Your task to perform on an android device: Open Chrome and go to settings Image 0: 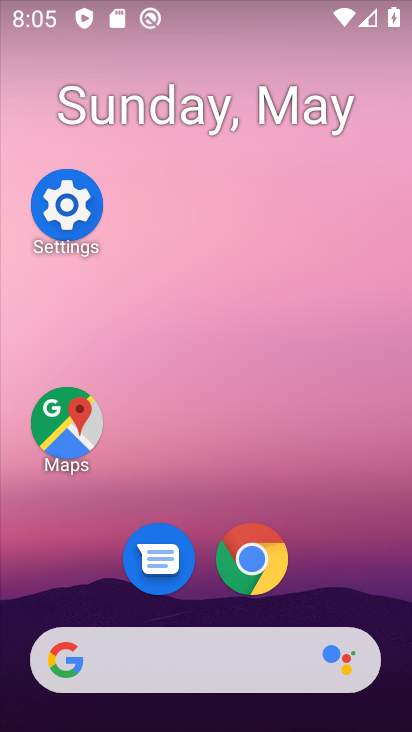
Step 0: click (272, 560)
Your task to perform on an android device: Open Chrome and go to settings Image 1: 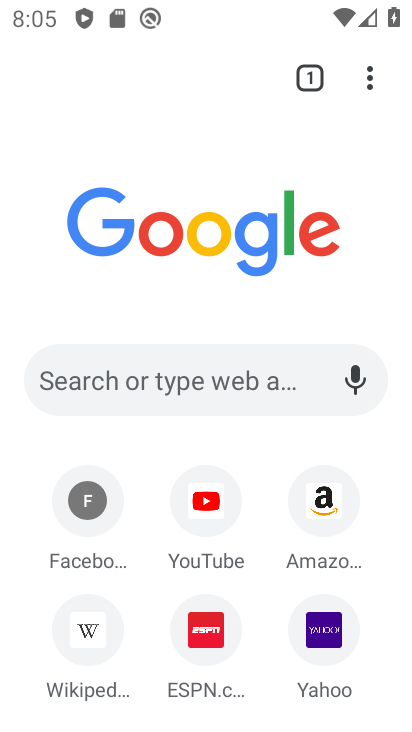
Step 1: click (382, 59)
Your task to perform on an android device: Open Chrome and go to settings Image 2: 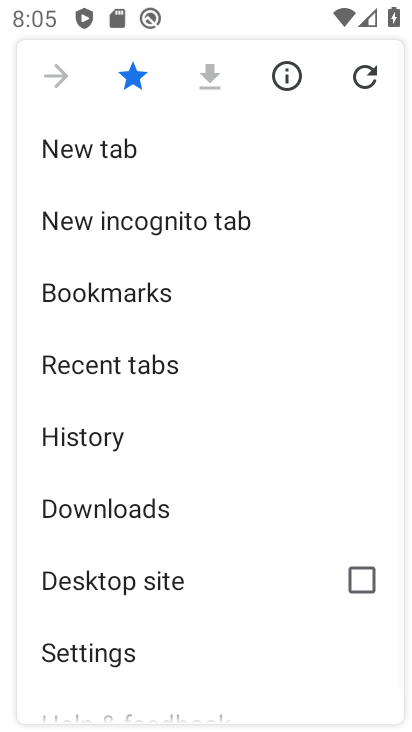
Step 2: click (133, 672)
Your task to perform on an android device: Open Chrome and go to settings Image 3: 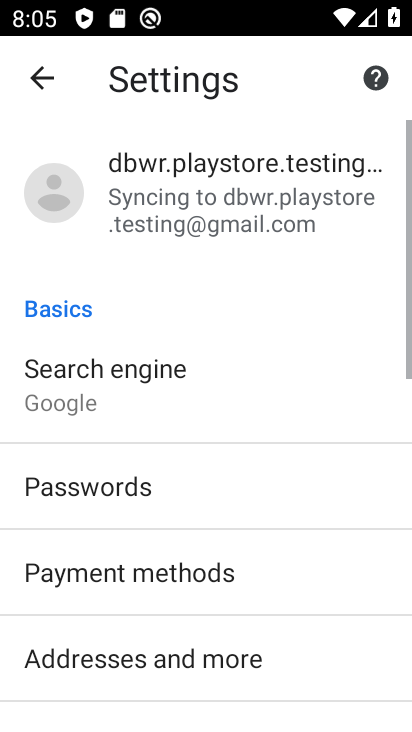
Step 3: task complete